Your task to perform on an android device: uninstall "Nova Launcher" Image 0: 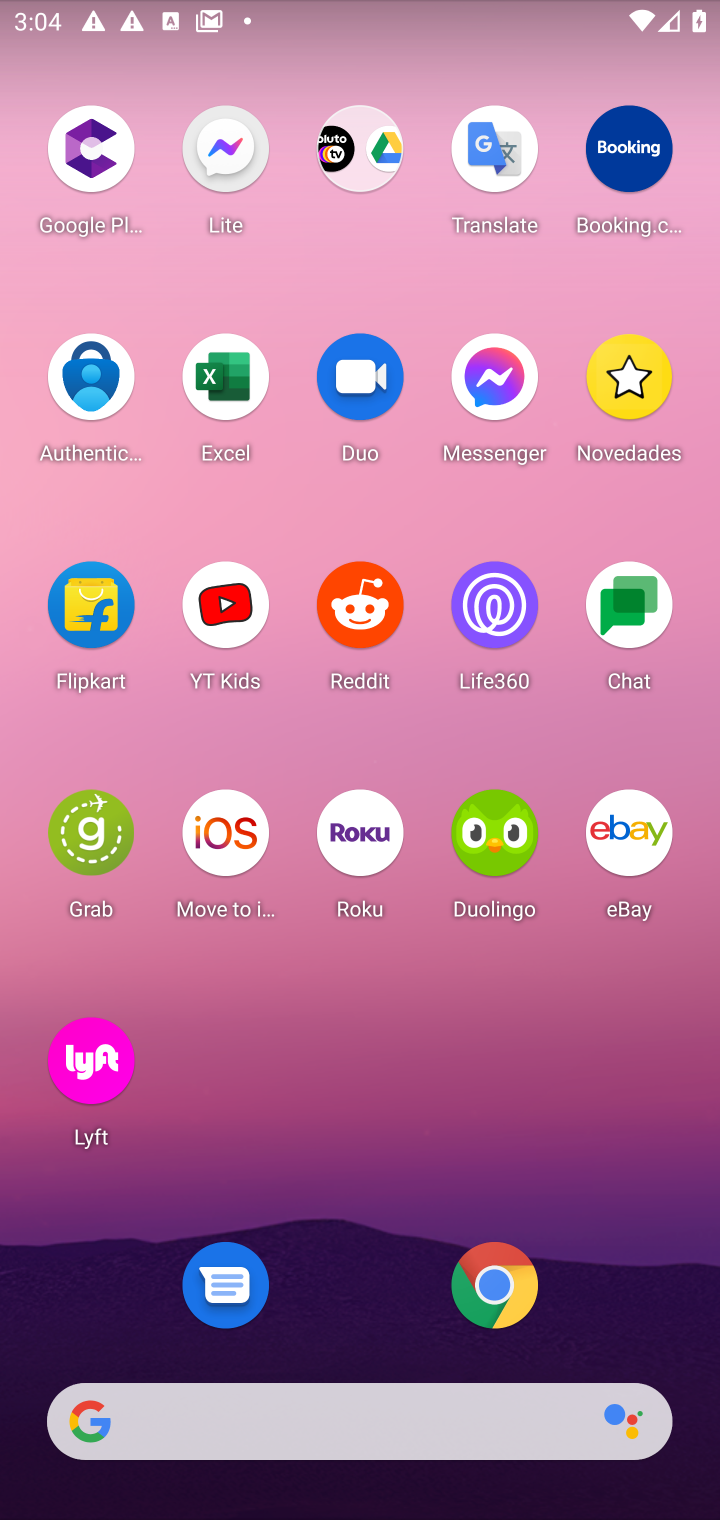
Step 0: drag from (332, 1227) to (394, 237)
Your task to perform on an android device: uninstall "Nova Launcher" Image 1: 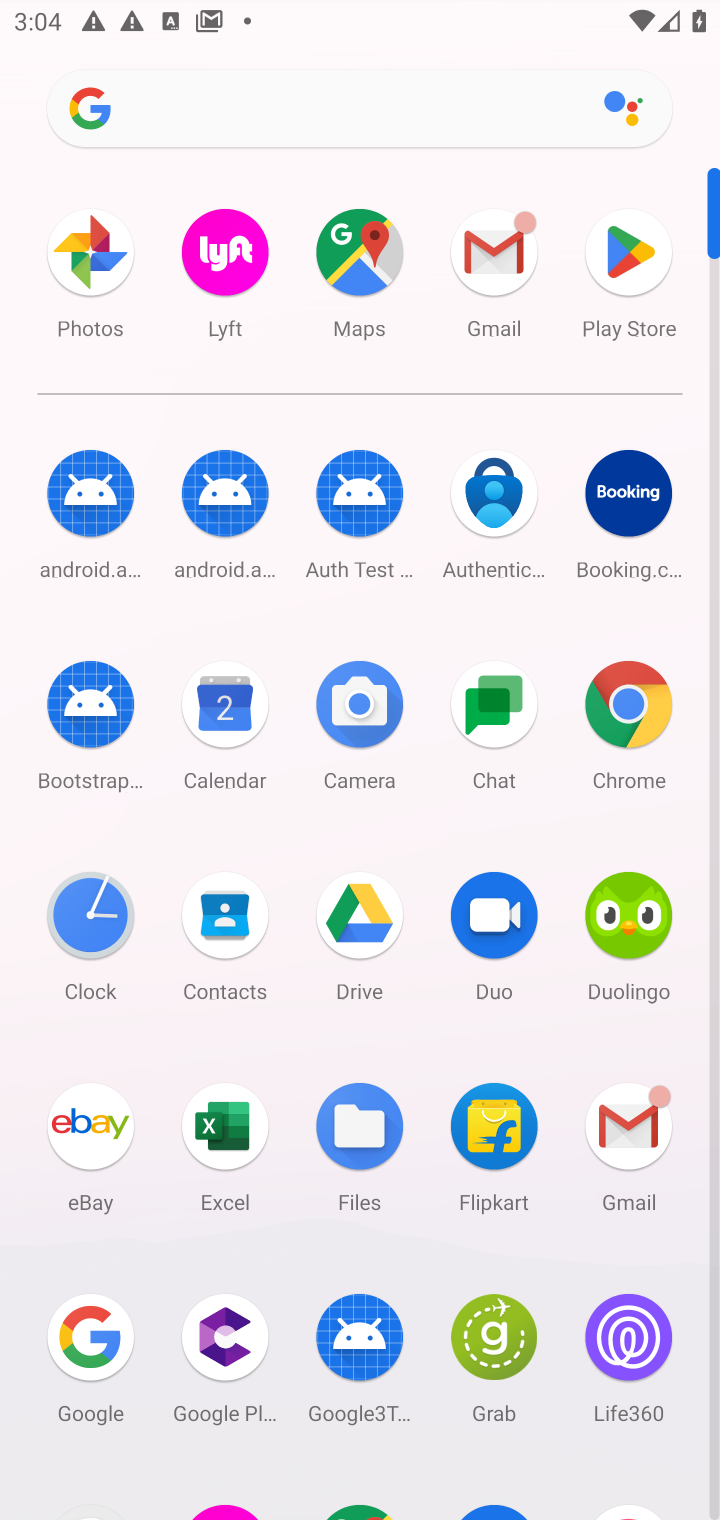
Step 1: drag from (289, 1256) to (303, 467)
Your task to perform on an android device: uninstall "Nova Launcher" Image 2: 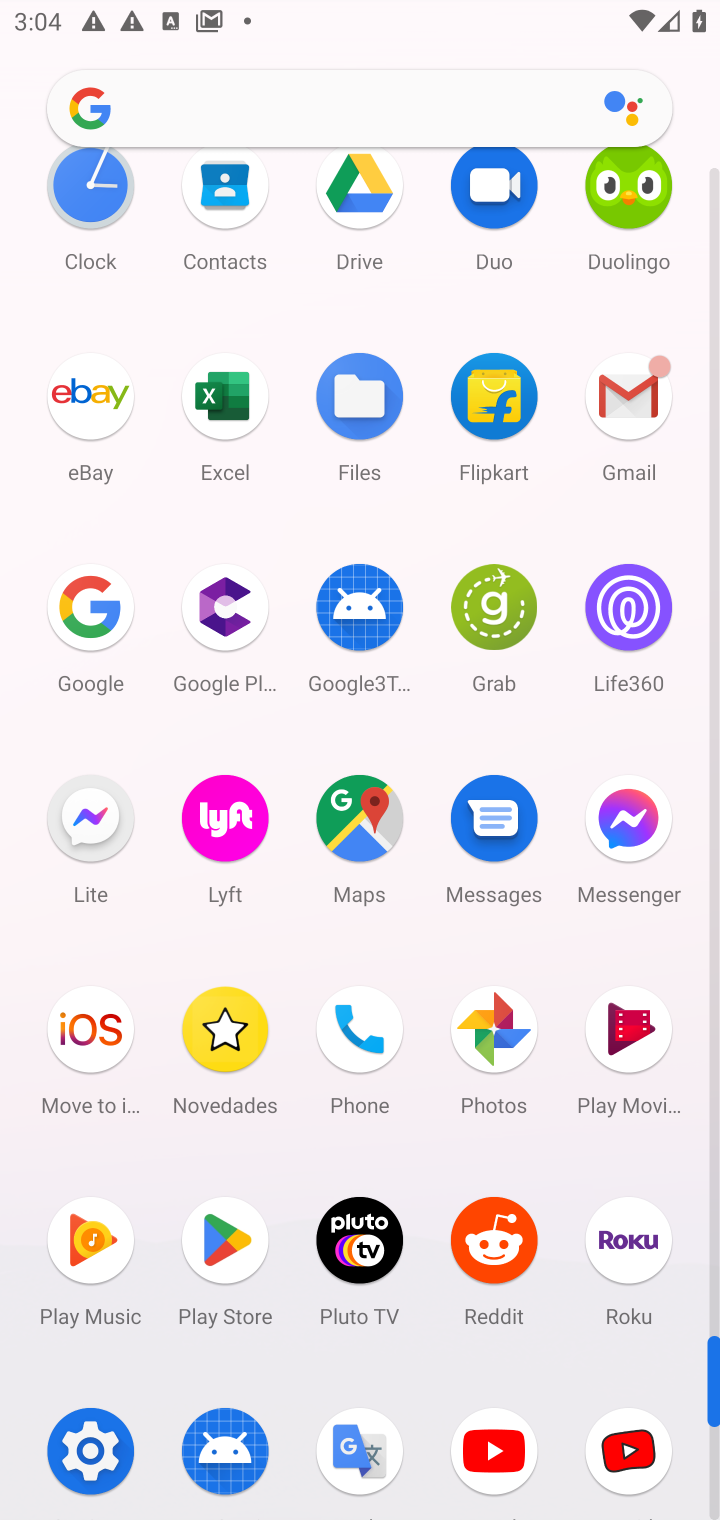
Step 2: click (226, 1255)
Your task to perform on an android device: uninstall "Nova Launcher" Image 3: 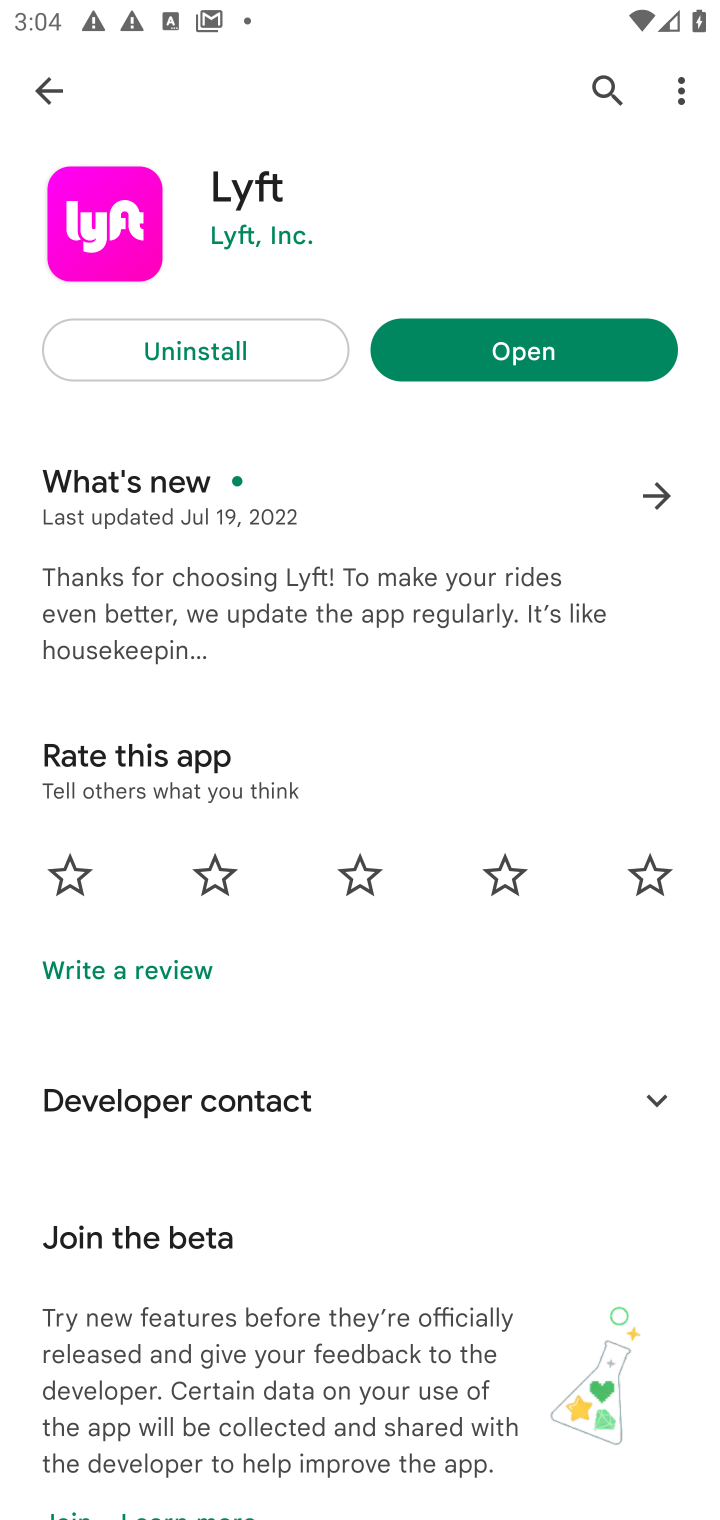
Step 3: click (594, 101)
Your task to perform on an android device: uninstall "Nova Launcher" Image 4: 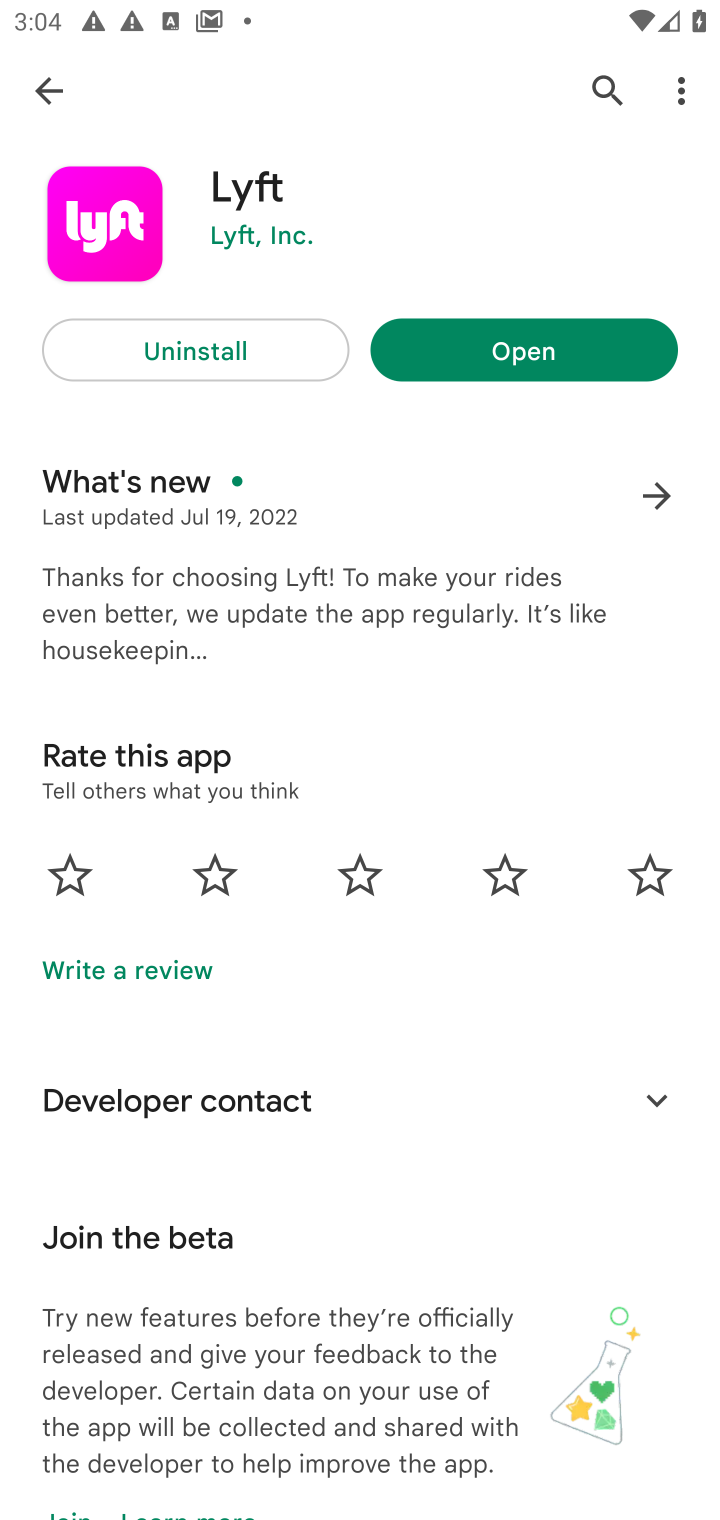
Step 4: press back button
Your task to perform on an android device: uninstall "Nova Launcher" Image 5: 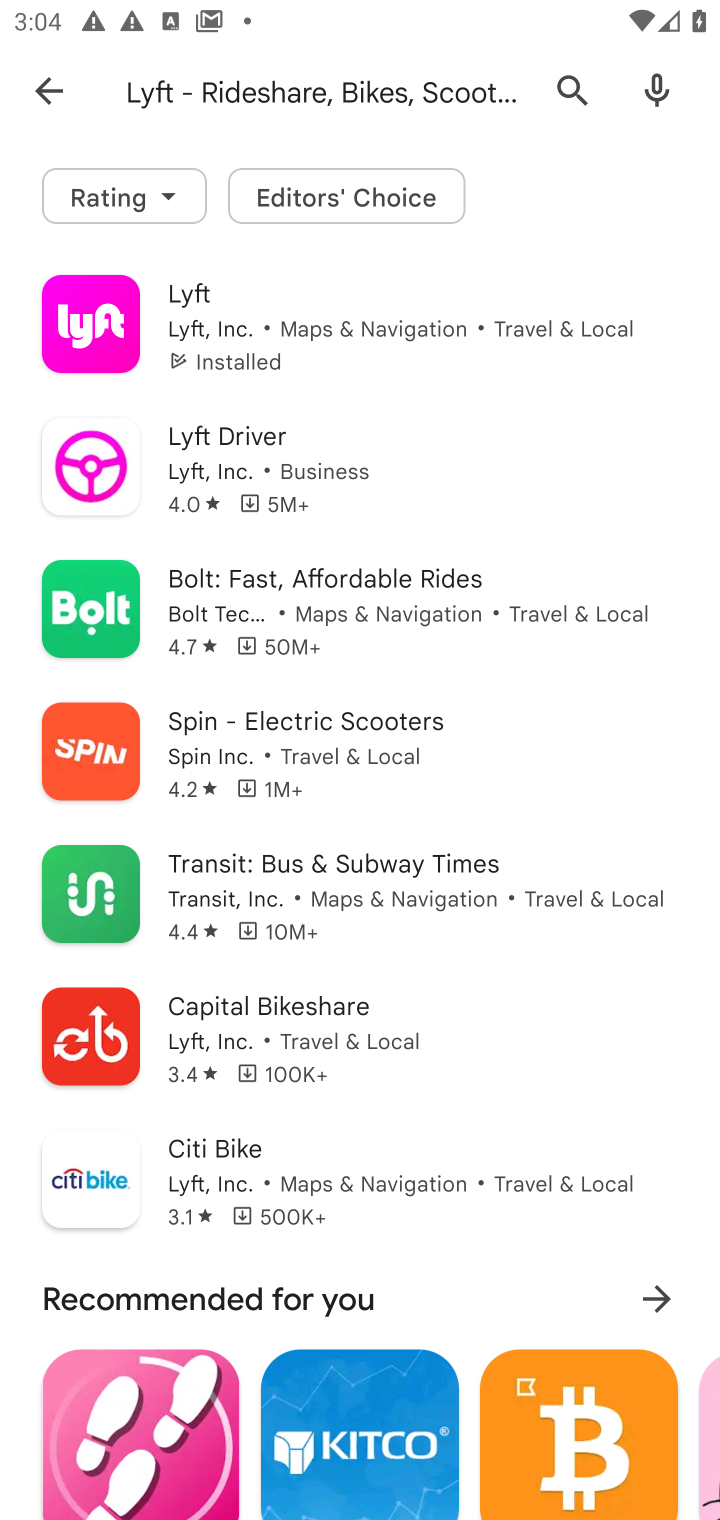
Step 5: click (475, 89)
Your task to perform on an android device: uninstall "Nova Launcher" Image 6: 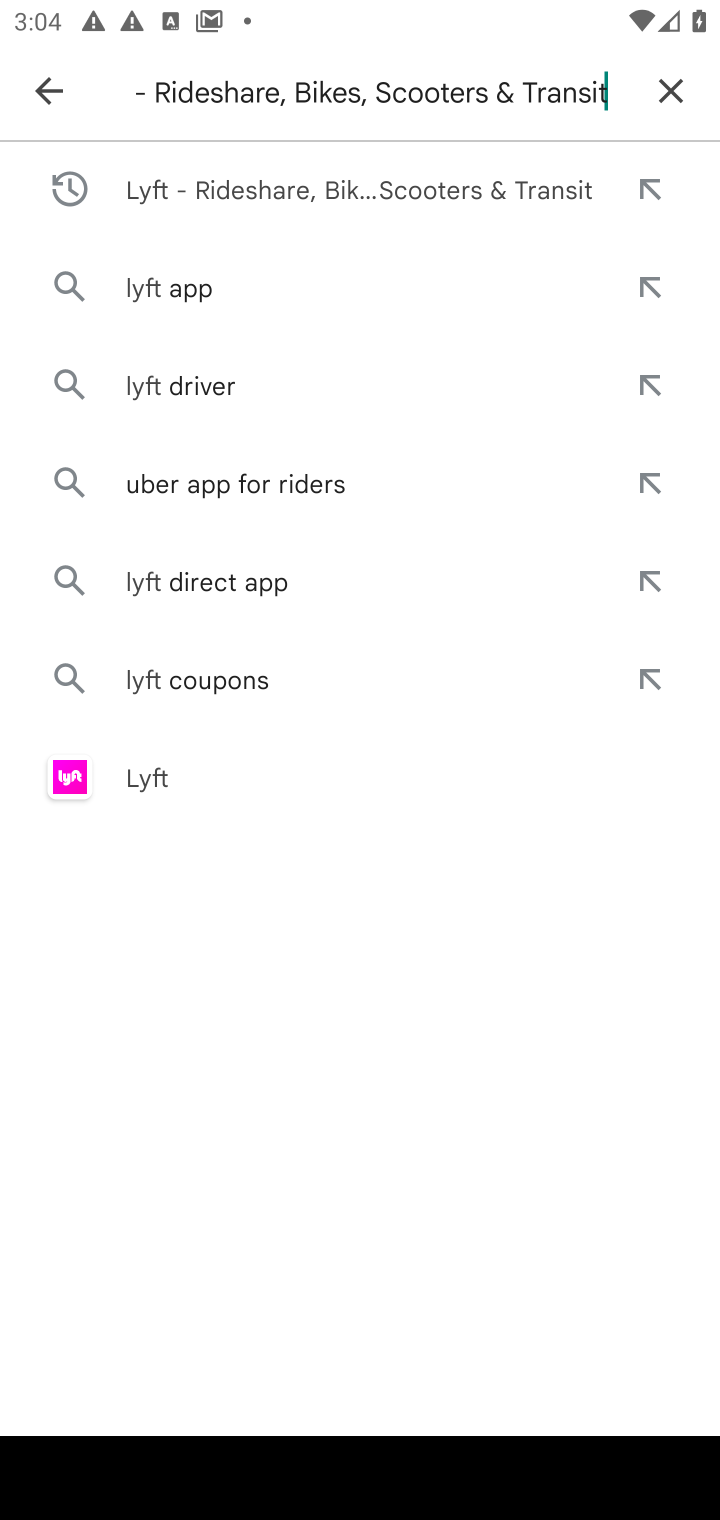
Step 6: click (678, 71)
Your task to perform on an android device: uninstall "Nova Launcher" Image 7: 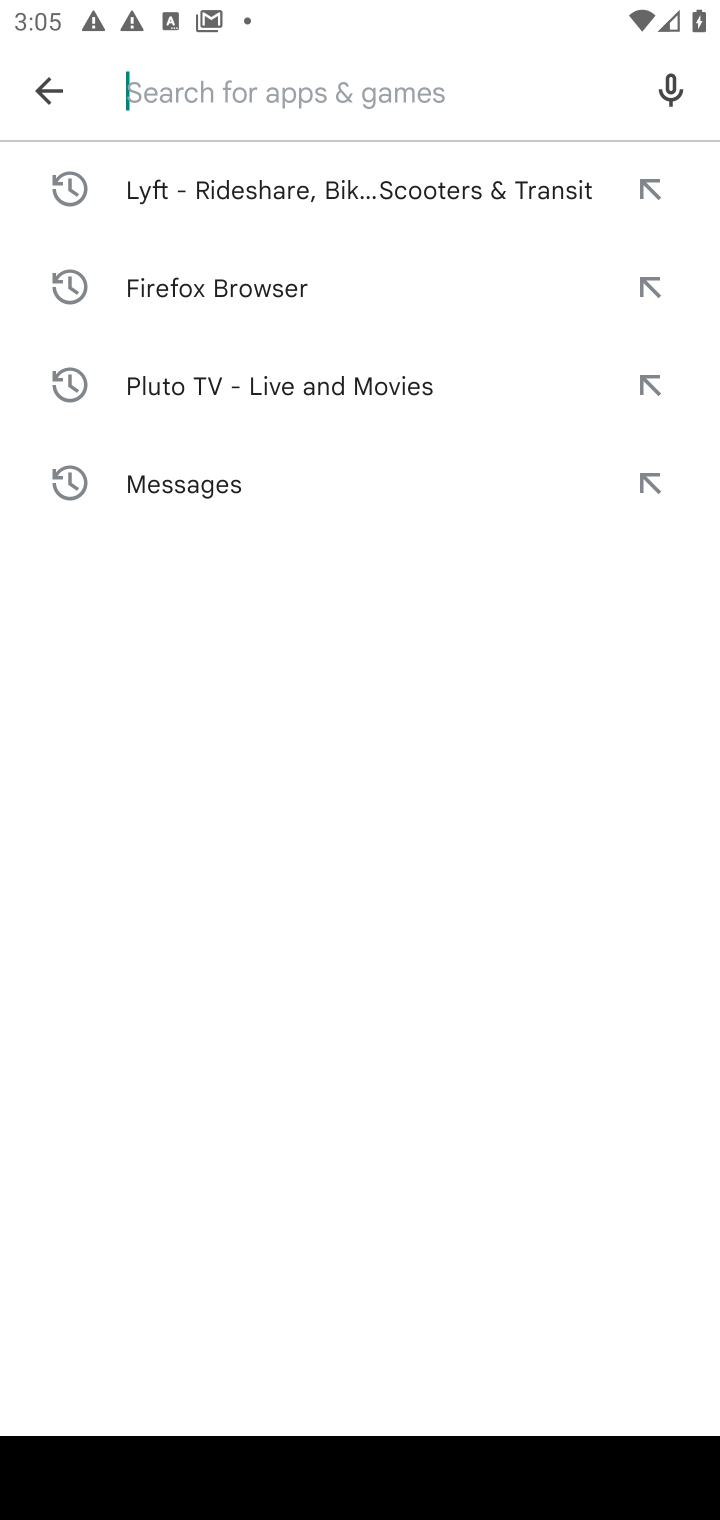
Step 7: type "Nova Launcher"
Your task to perform on an android device: uninstall "Nova Launcher" Image 8: 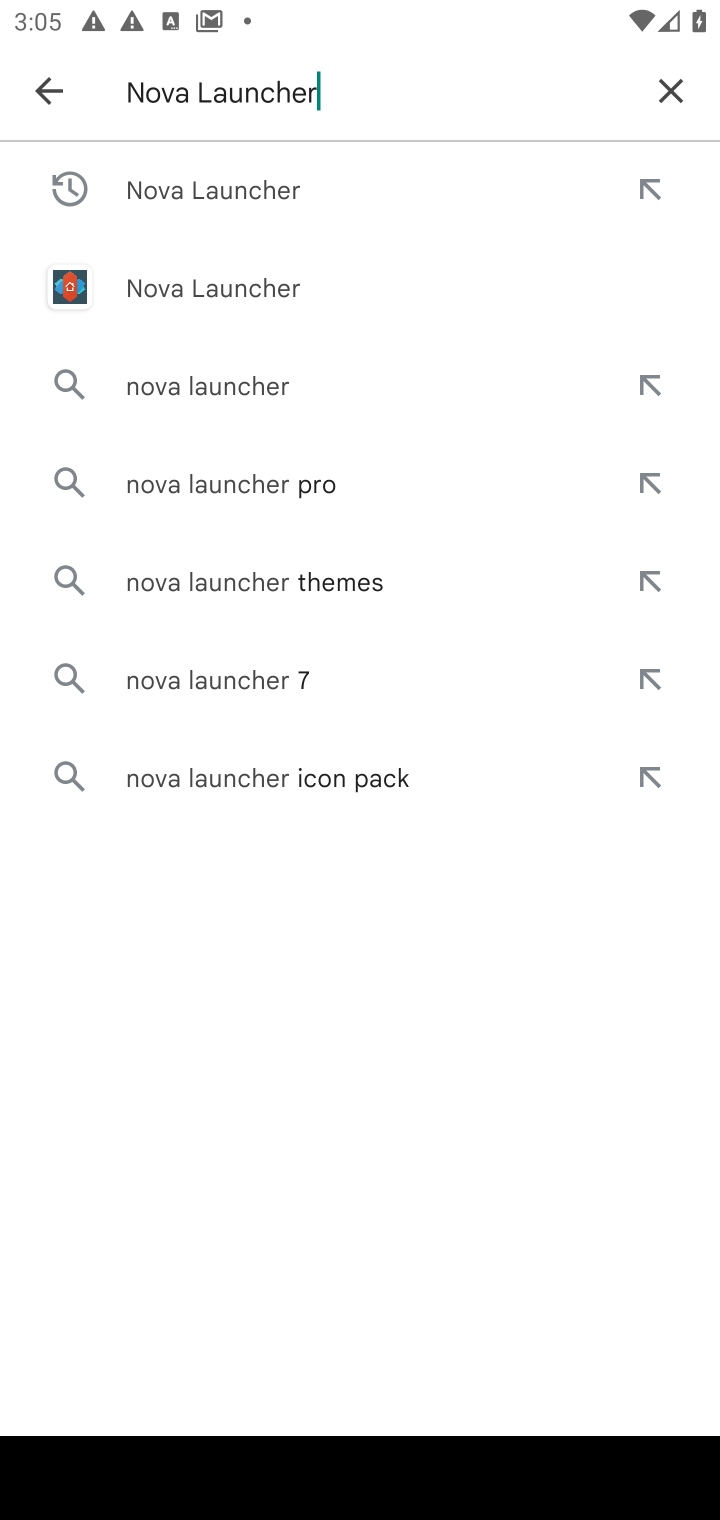
Step 8: press enter
Your task to perform on an android device: uninstall "Nova Launcher" Image 9: 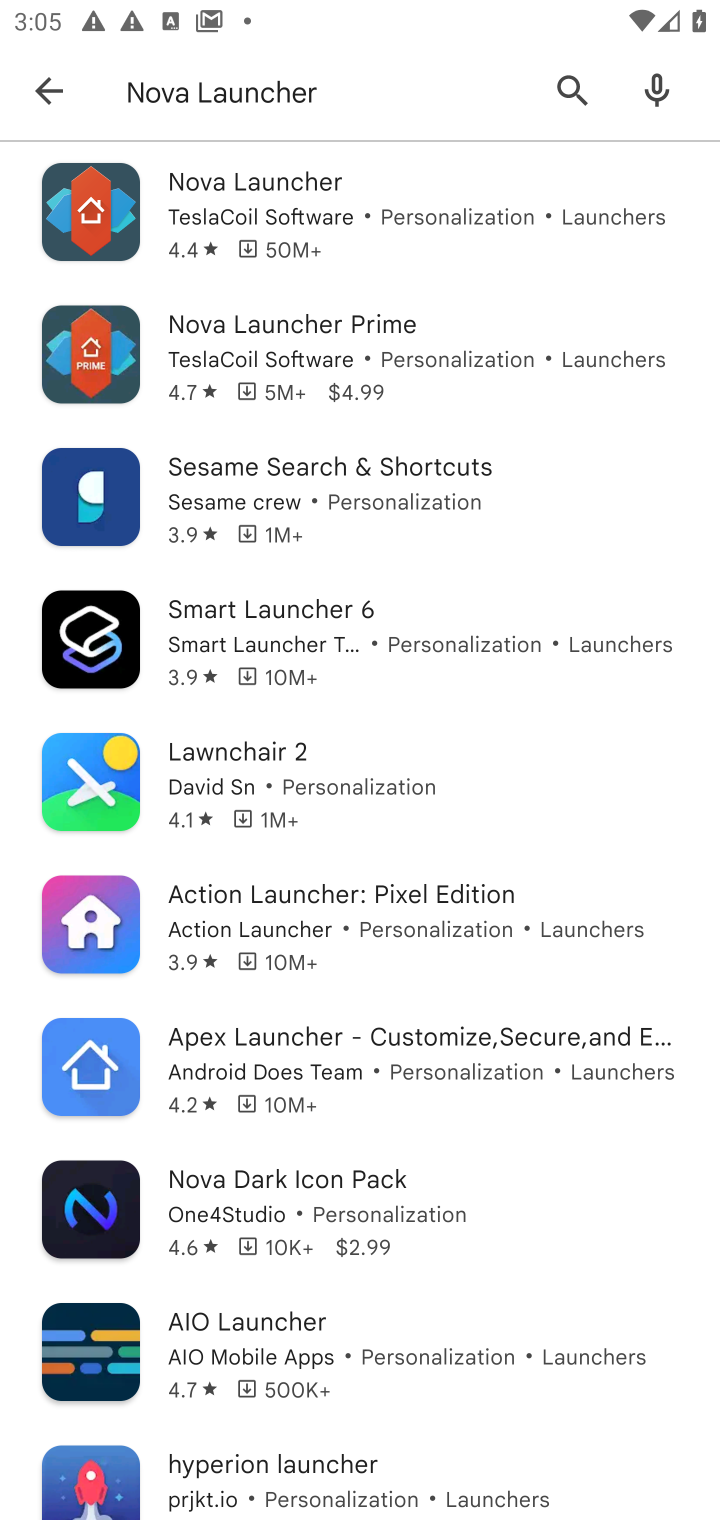
Step 9: click (276, 206)
Your task to perform on an android device: uninstall "Nova Launcher" Image 10: 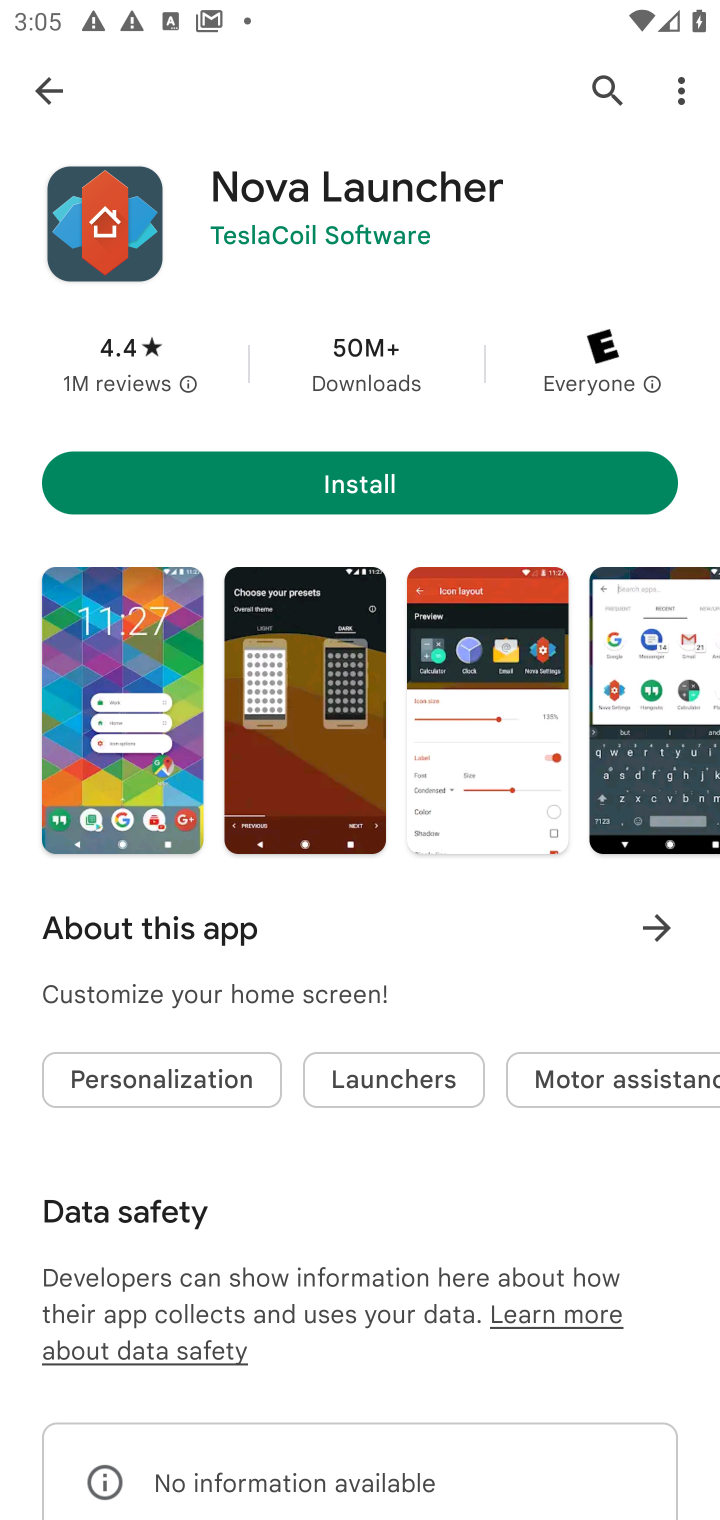
Step 10: task complete